Your task to perform on an android device: refresh tabs in the chrome app Image 0: 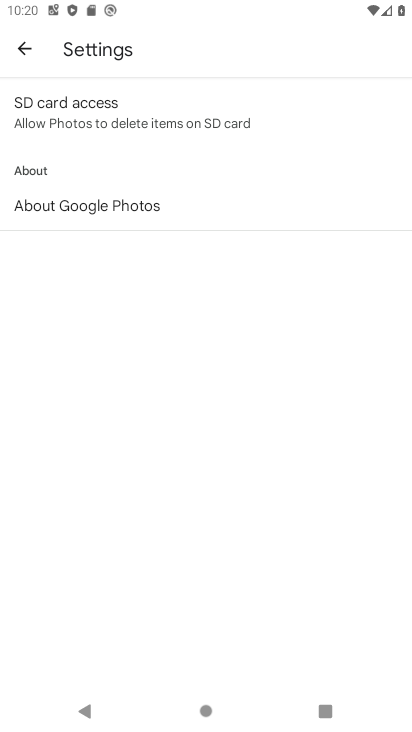
Step 0: press home button
Your task to perform on an android device: refresh tabs in the chrome app Image 1: 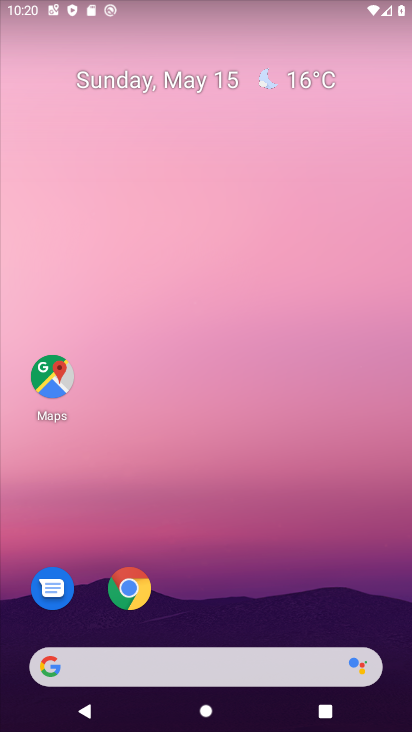
Step 1: click (128, 606)
Your task to perform on an android device: refresh tabs in the chrome app Image 2: 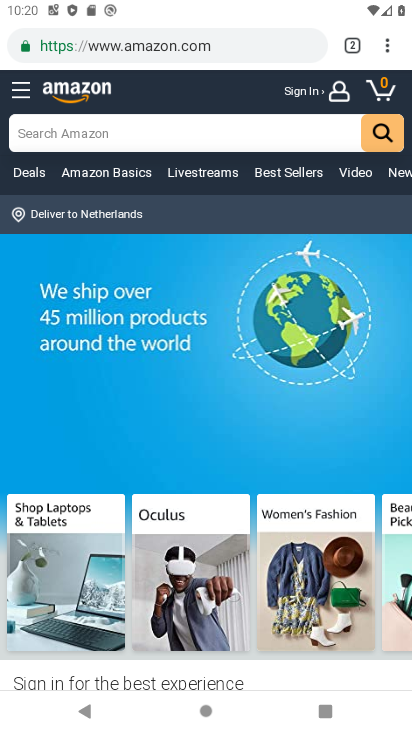
Step 2: click (393, 45)
Your task to perform on an android device: refresh tabs in the chrome app Image 3: 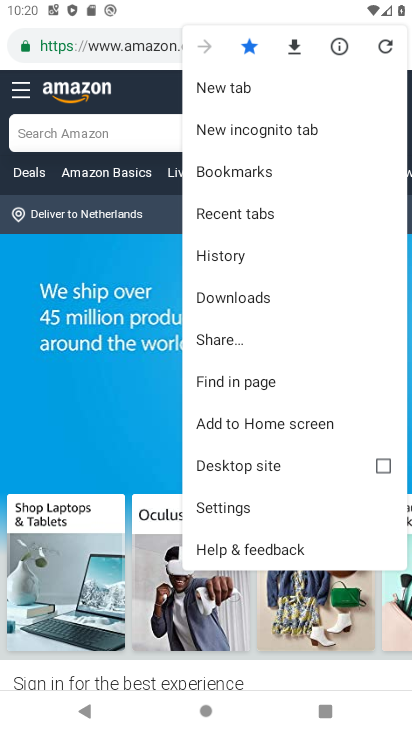
Step 3: click (383, 48)
Your task to perform on an android device: refresh tabs in the chrome app Image 4: 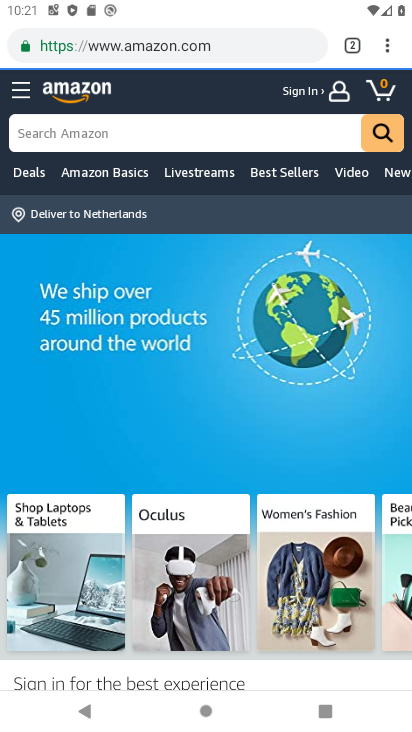
Step 4: task complete